Your task to perform on an android device: turn on the 24-hour format for clock Image 0: 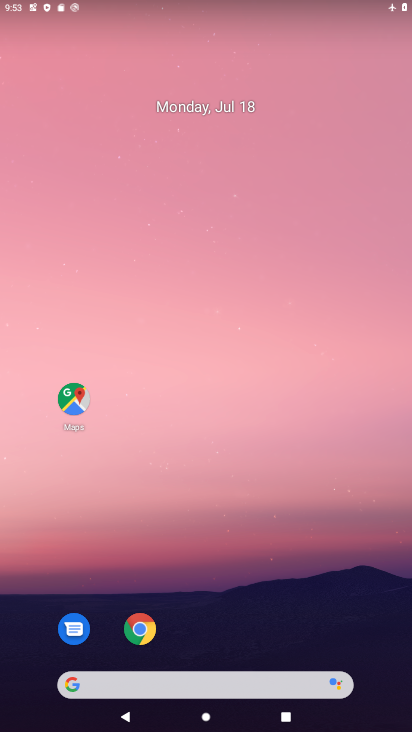
Step 0: drag from (196, 428) to (209, 66)
Your task to perform on an android device: turn on the 24-hour format for clock Image 1: 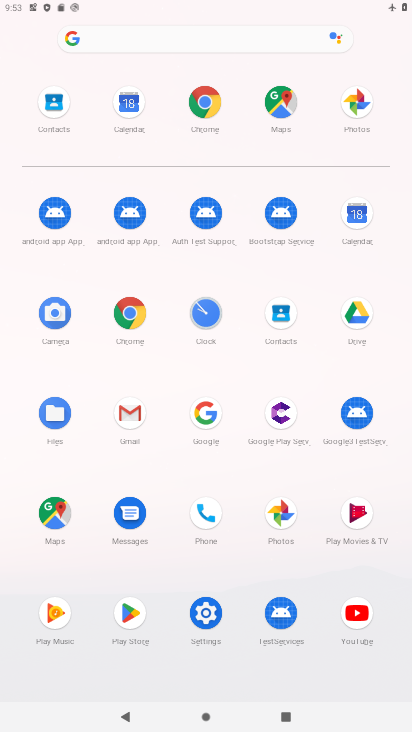
Step 1: click (206, 315)
Your task to perform on an android device: turn on the 24-hour format for clock Image 2: 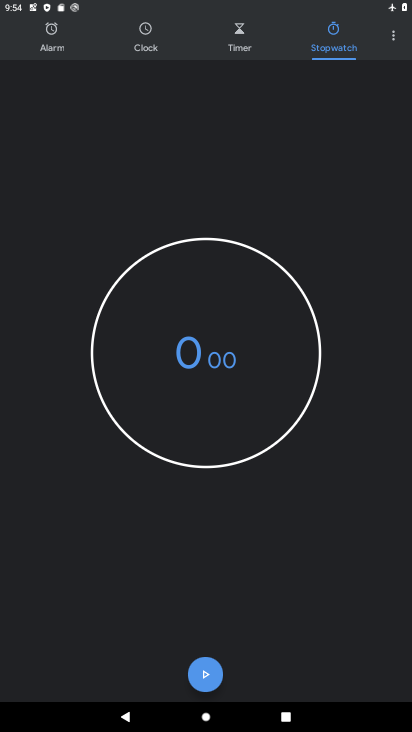
Step 2: click (398, 43)
Your task to perform on an android device: turn on the 24-hour format for clock Image 3: 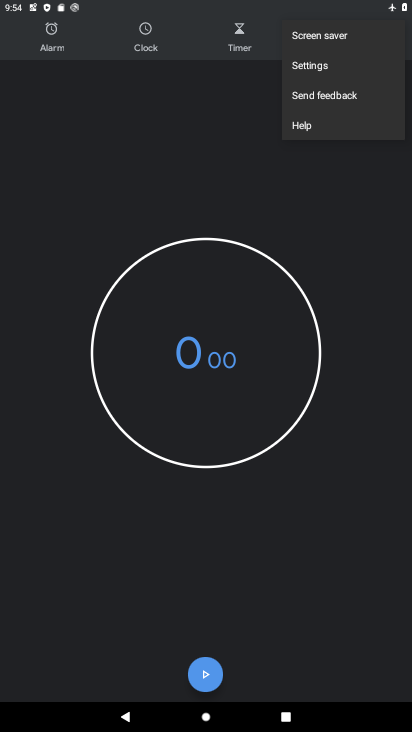
Step 3: click (317, 70)
Your task to perform on an android device: turn on the 24-hour format for clock Image 4: 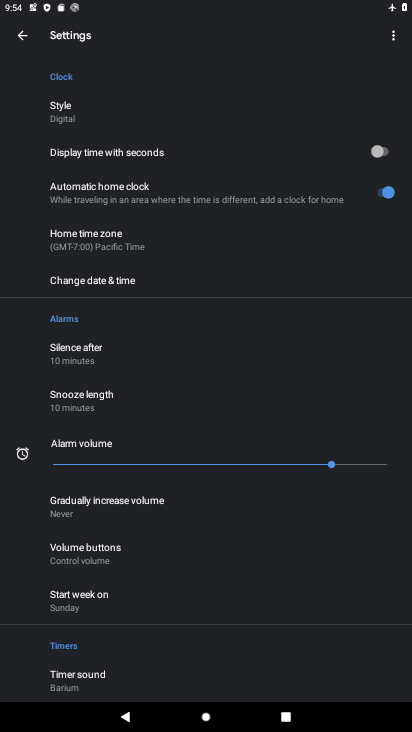
Step 4: click (78, 278)
Your task to perform on an android device: turn on the 24-hour format for clock Image 5: 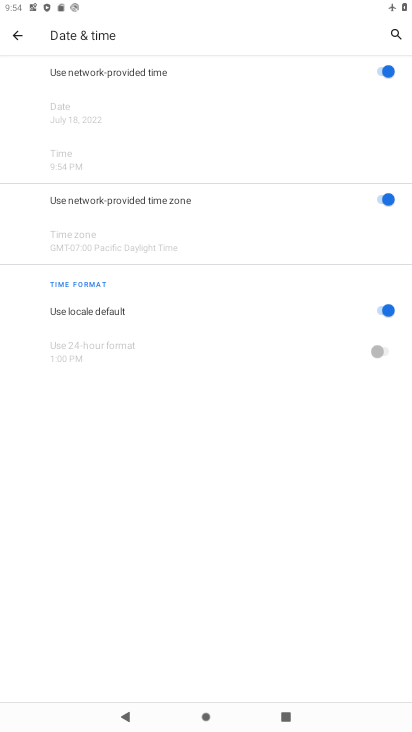
Step 5: click (378, 315)
Your task to perform on an android device: turn on the 24-hour format for clock Image 6: 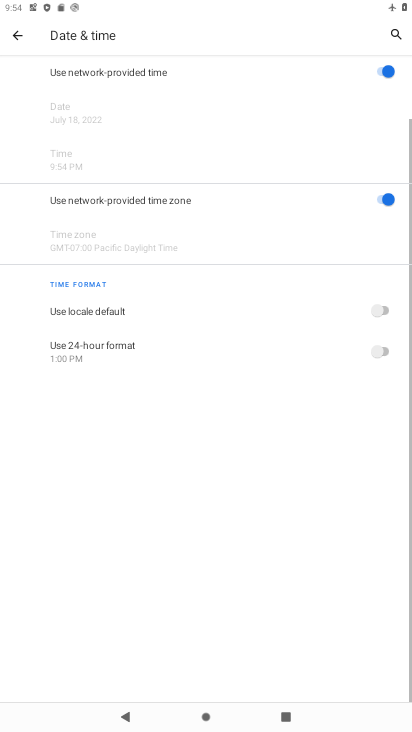
Step 6: click (384, 346)
Your task to perform on an android device: turn on the 24-hour format for clock Image 7: 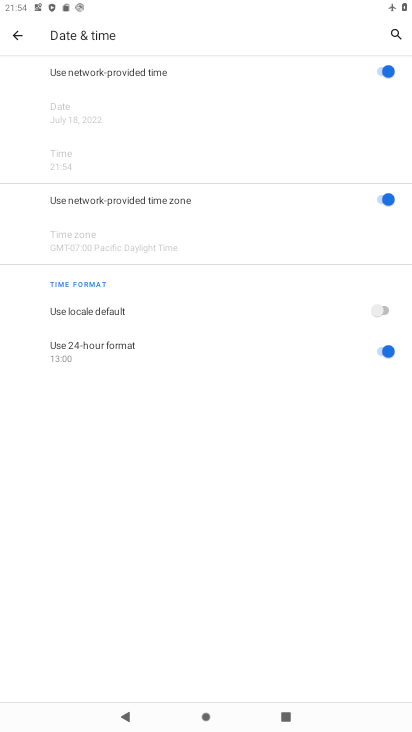
Step 7: task complete